Your task to perform on an android device: toggle location history Image 0: 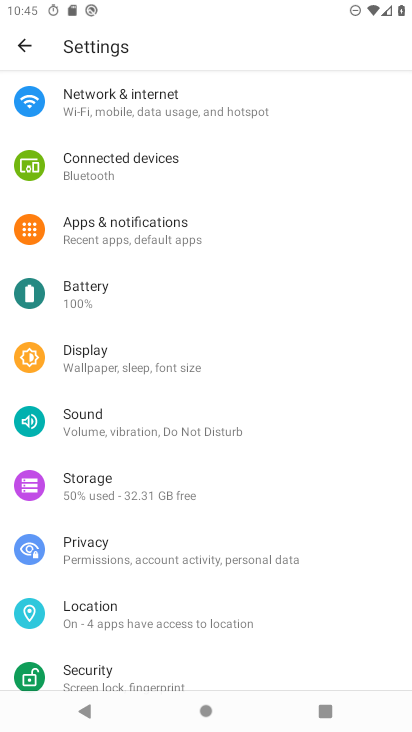
Step 0: click (98, 611)
Your task to perform on an android device: toggle location history Image 1: 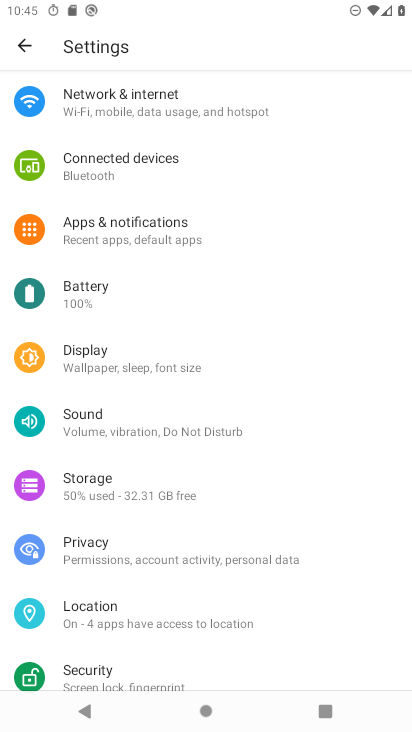
Step 1: click (98, 612)
Your task to perform on an android device: toggle location history Image 2: 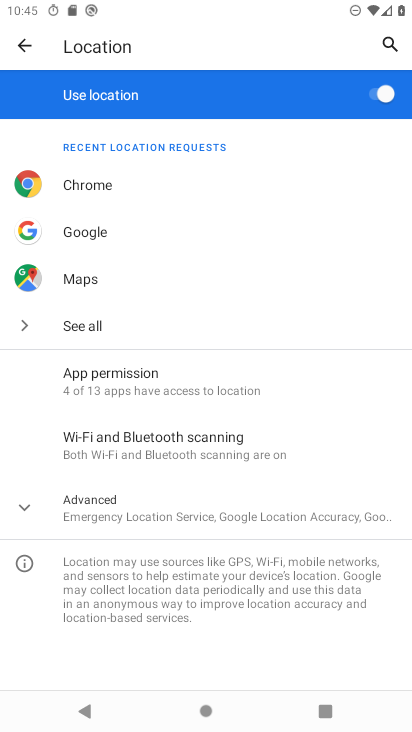
Step 2: click (22, 503)
Your task to perform on an android device: toggle location history Image 3: 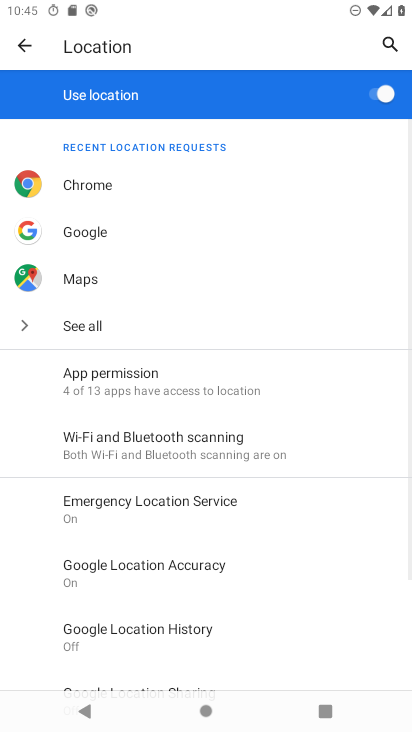
Step 3: drag from (321, 653) to (339, 348)
Your task to perform on an android device: toggle location history Image 4: 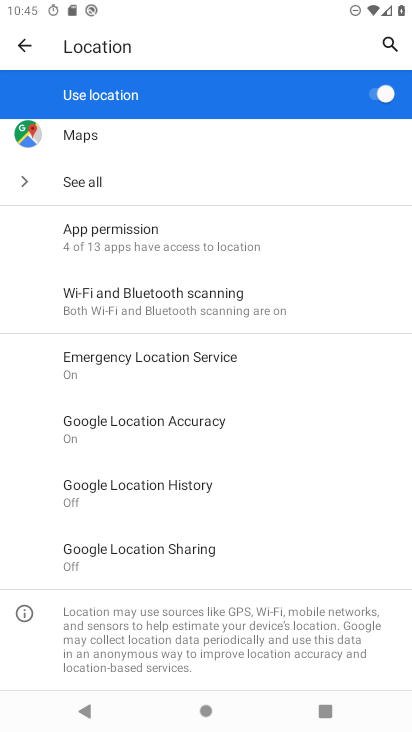
Step 4: click (136, 495)
Your task to perform on an android device: toggle location history Image 5: 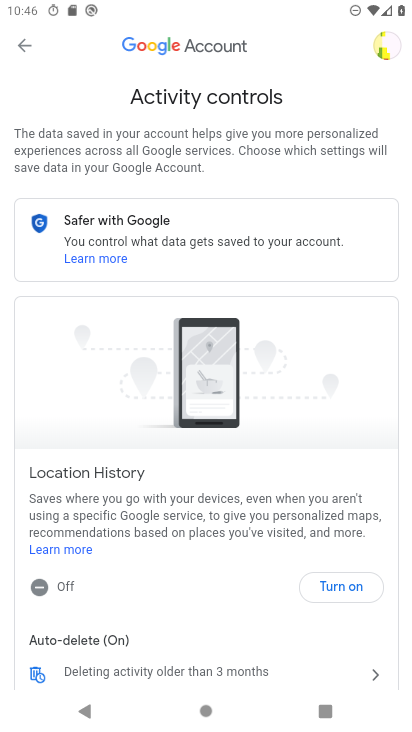
Step 5: click (335, 588)
Your task to perform on an android device: toggle location history Image 6: 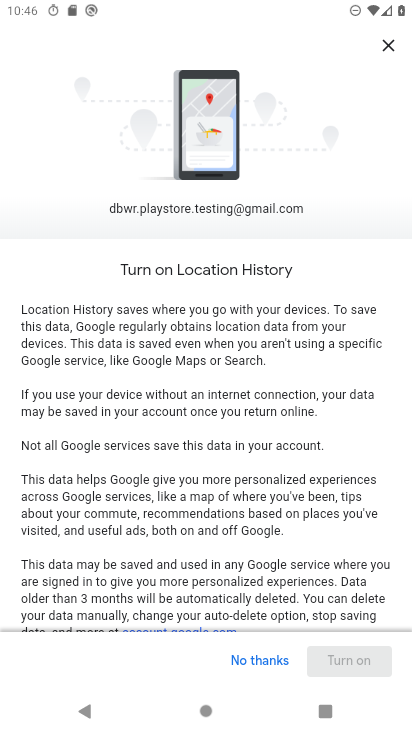
Step 6: drag from (268, 602) to (258, 211)
Your task to perform on an android device: toggle location history Image 7: 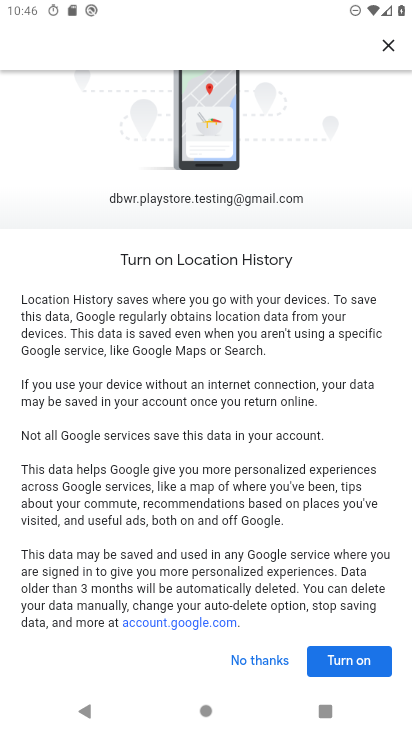
Step 7: click (345, 657)
Your task to perform on an android device: toggle location history Image 8: 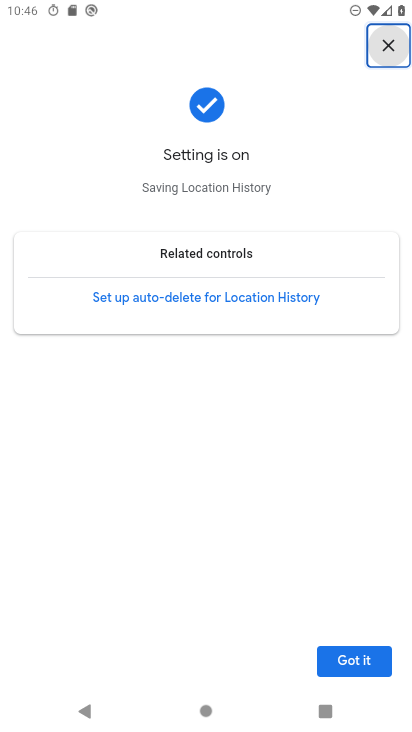
Step 8: click (350, 664)
Your task to perform on an android device: toggle location history Image 9: 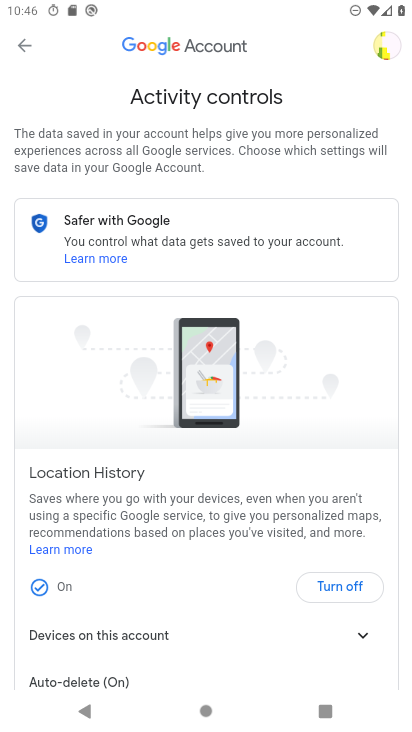
Step 9: task complete